Your task to perform on an android device: What's the weather going to be this weekend? Image 0: 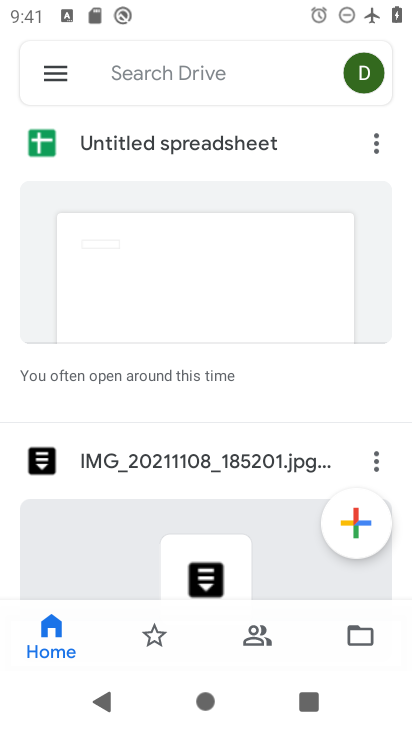
Step 0: press home button
Your task to perform on an android device: What's the weather going to be this weekend? Image 1: 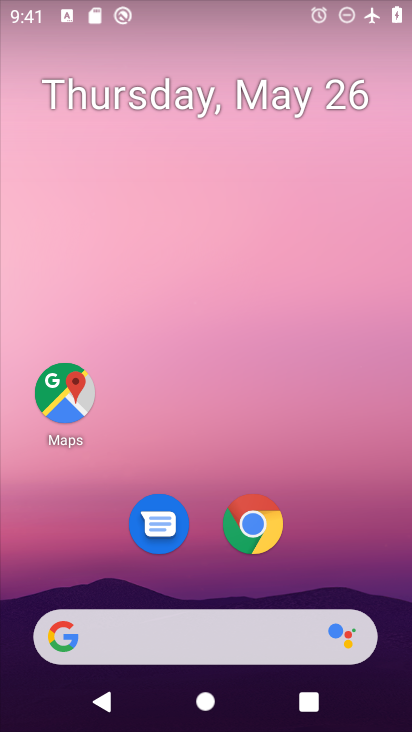
Step 1: click (253, 637)
Your task to perform on an android device: What's the weather going to be this weekend? Image 2: 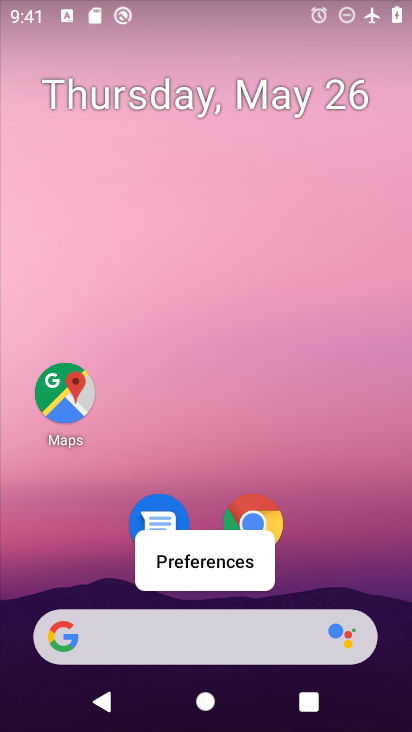
Step 2: click (191, 635)
Your task to perform on an android device: What's the weather going to be this weekend? Image 3: 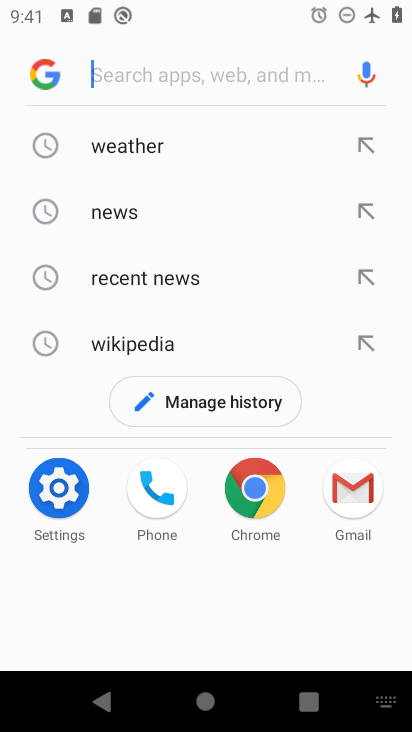
Step 3: click (103, 140)
Your task to perform on an android device: What's the weather going to be this weekend? Image 4: 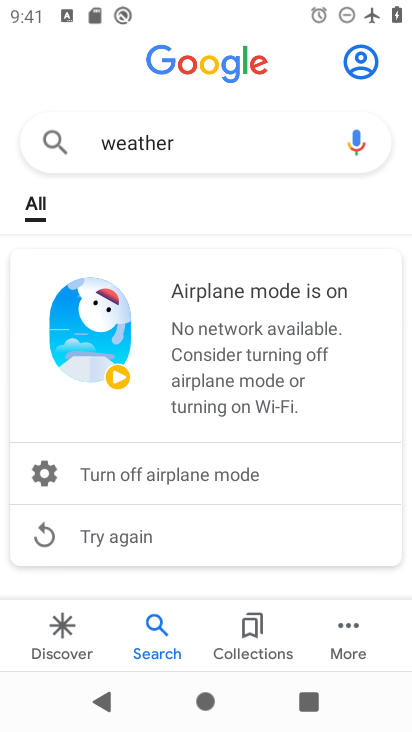
Step 4: task complete